Your task to perform on an android device: search for starred emails in the gmail app Image 0: 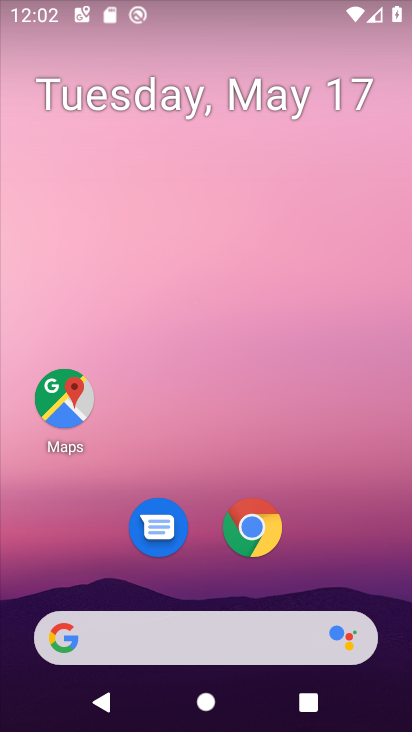
Step 0: drag from (348, 539) to (385, 205)
Your task to perform on an android device: search for starred emails in the gmail app Image 1: 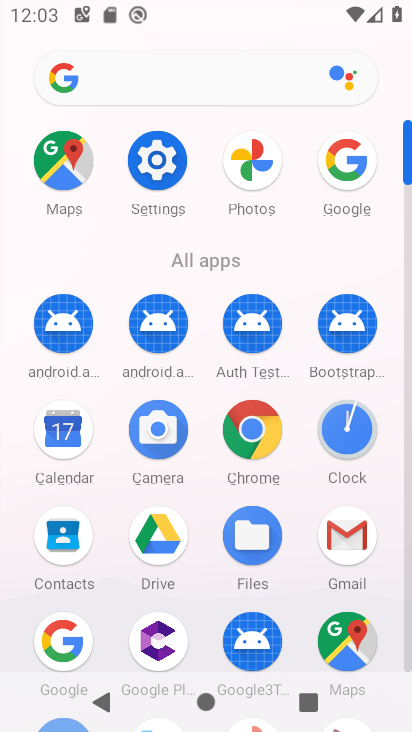
Step 1: click (340, 551)
Your task to perform on an android device: search for starred emails in the gmail app Image 2: 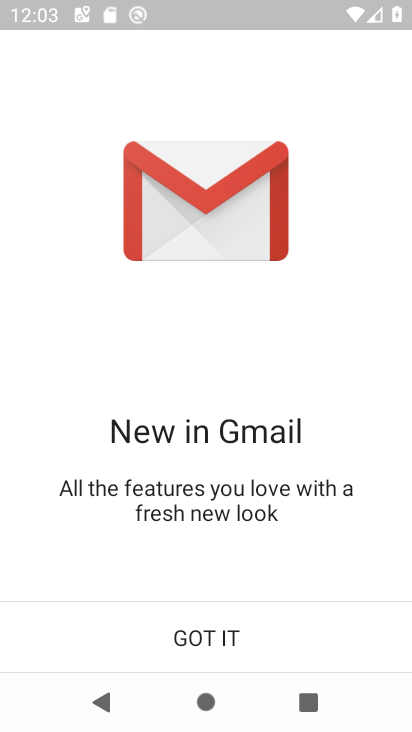
Step 2: click (222, 623)
Your task to perform on an android device: search for starred emails in the gmail app Image 3: 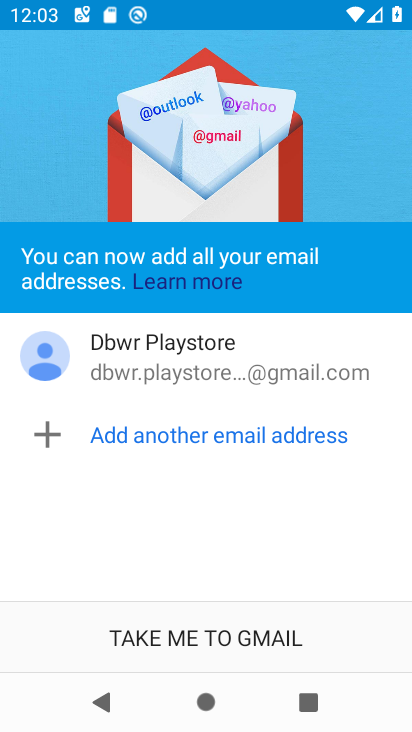
Step 3: click (222, 623)
Your task to perform on an android device: search for starred emails in the gmail app Image 4: 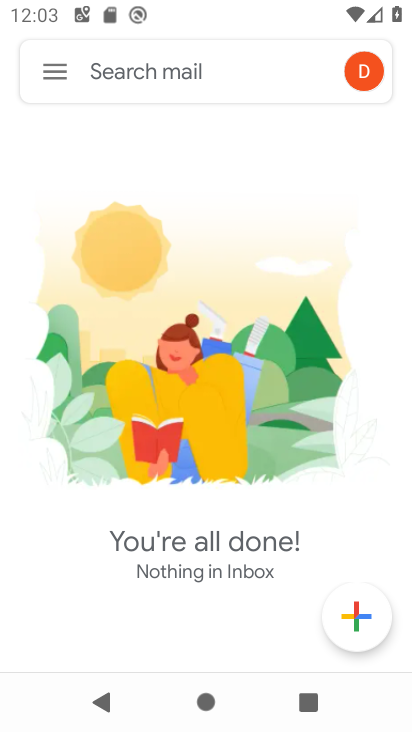
Step 4: click (51, 82)
Your task to perform on an android device: search for starred emails in the gmail app Image 5: 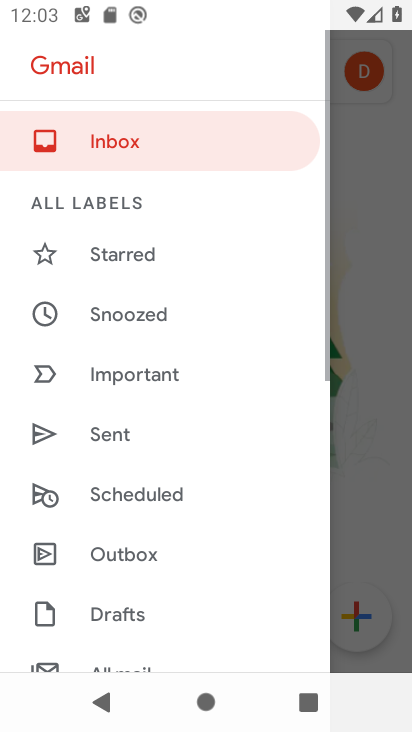
Step 5: click (143, 253)
Your task to perform on an android device: search for starred emails in the gmail app Image 6: 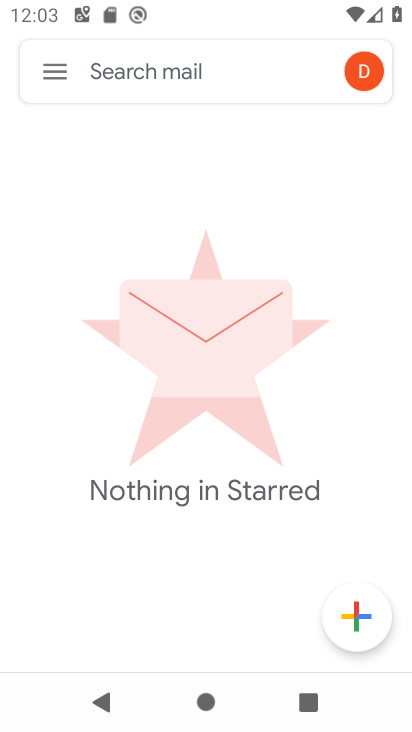
Step 6: task complete